Your task to perform on an android device: set default search engine in the chrome app Image 0: 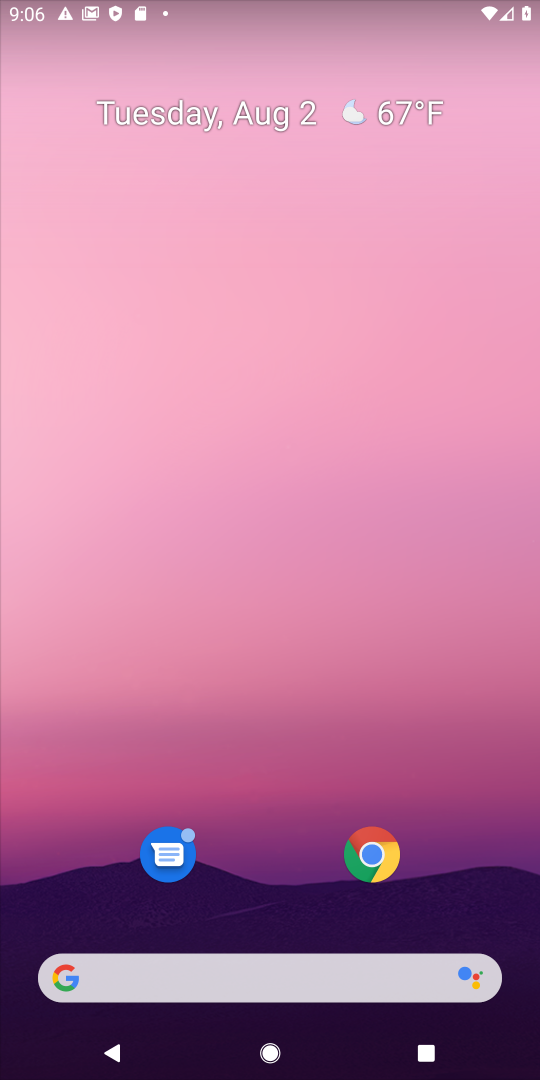
Step 0: click (388, 849)
Your task to perform on an android device: set default search engine in the chrome app Image 1: 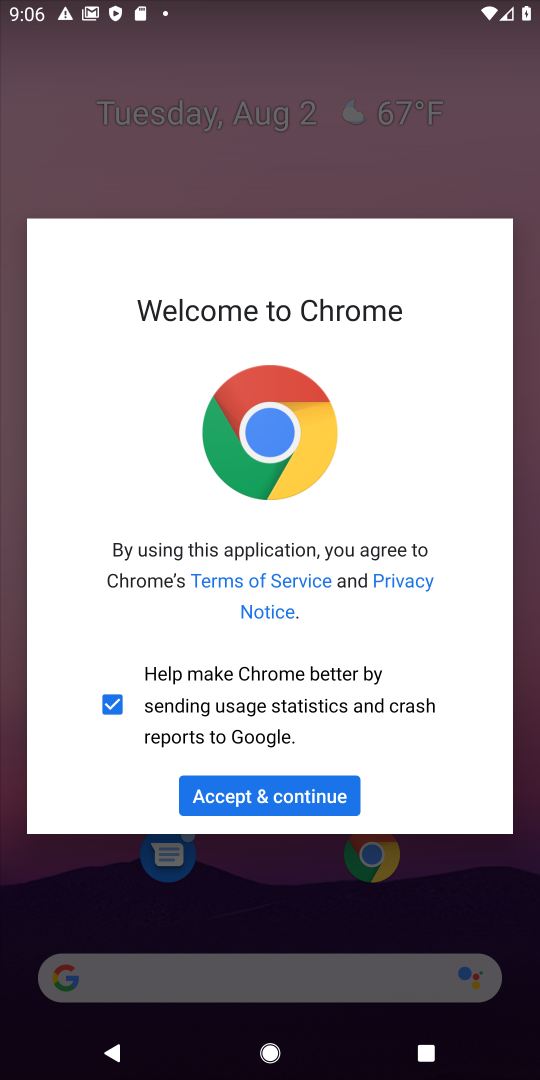
Step 1: click (310, 800)
Your task to perform on an android device: set default search engine in the chrome app Image 2: 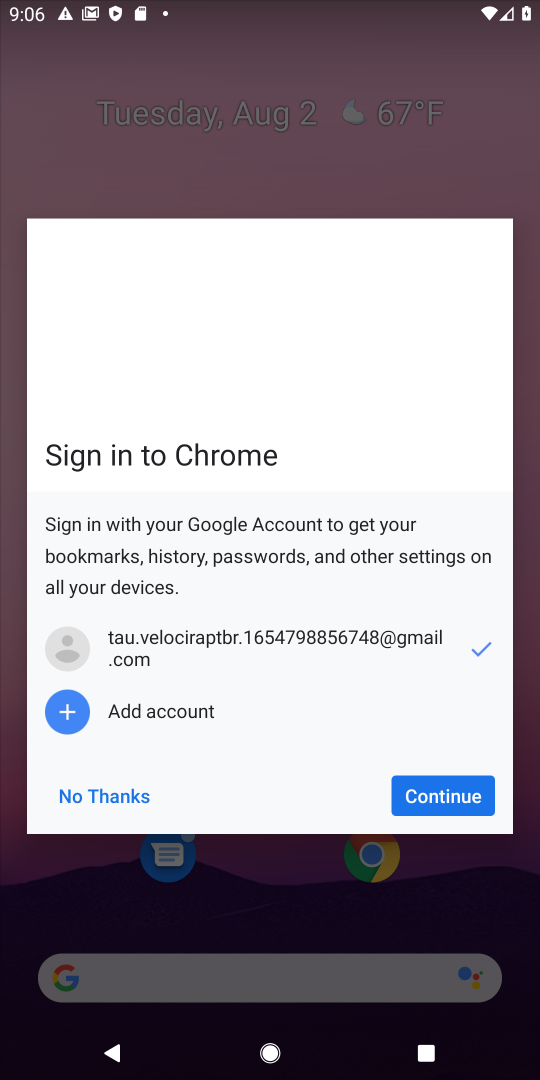
Step 2: click (491, 781)
Your task to perform on an android device: set default search engine in the chrome app Image 3: 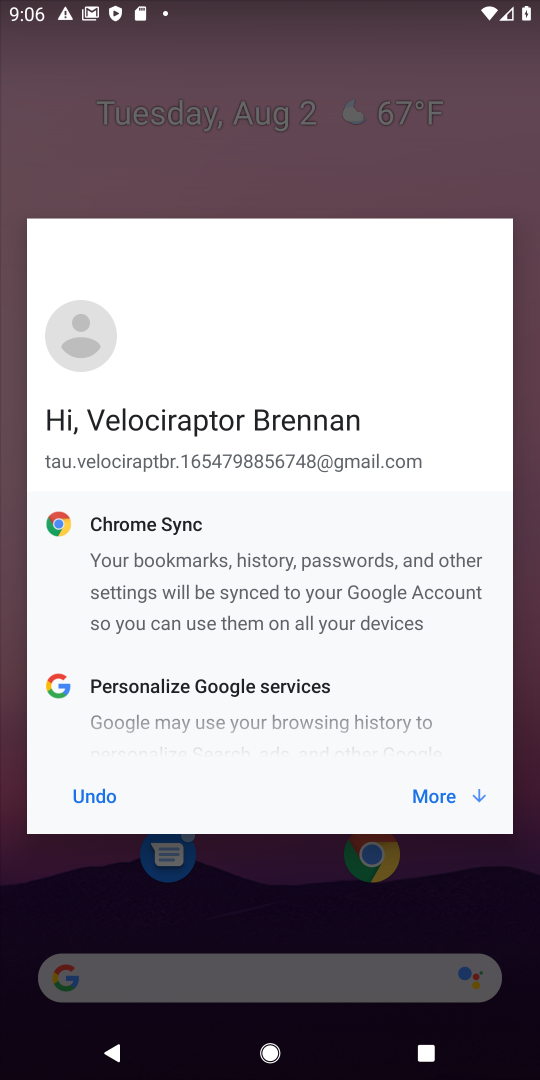
Step 3: click (467, 806)
Your task to perform on an android device: set default search engine in the chrome app Image 4: 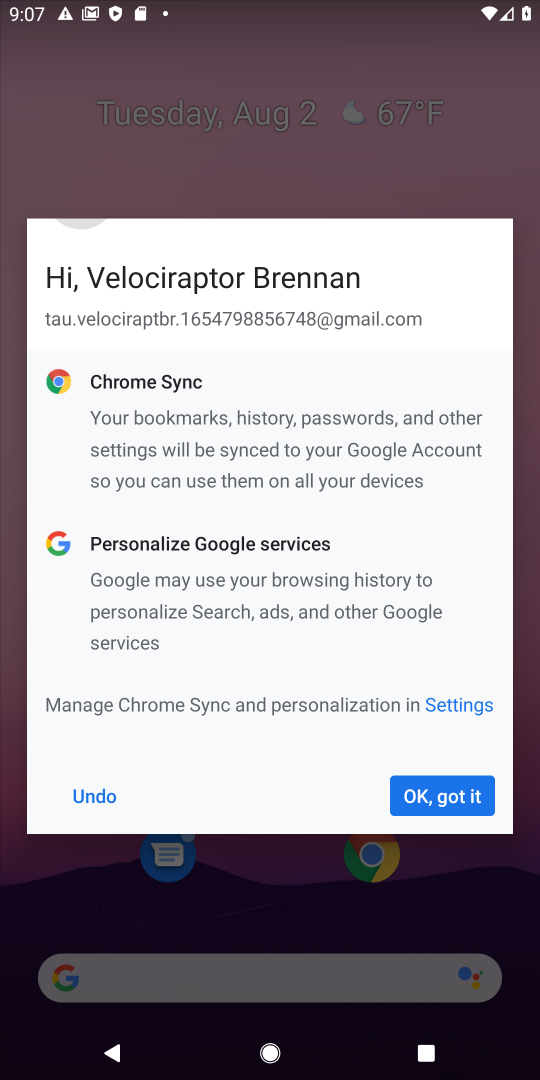
Step 4: click (474, 797)
Your task to perform on an android device: set default search engine in the chrome app Image 5: 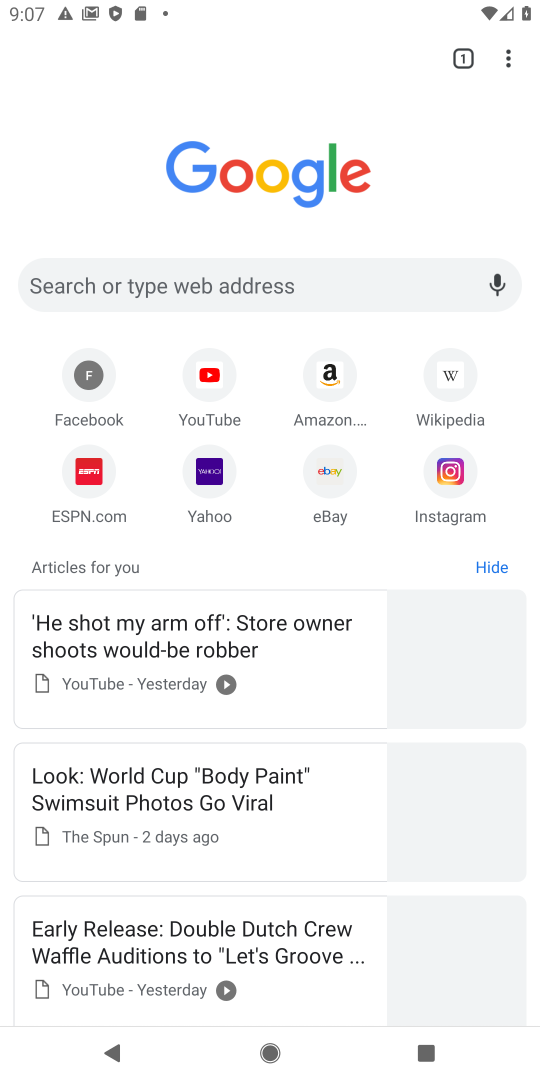
Step 5: drag from (497, 61) to (304, 554)
Your task to perform on an android device: set default search engine in the chrome app Image 6: 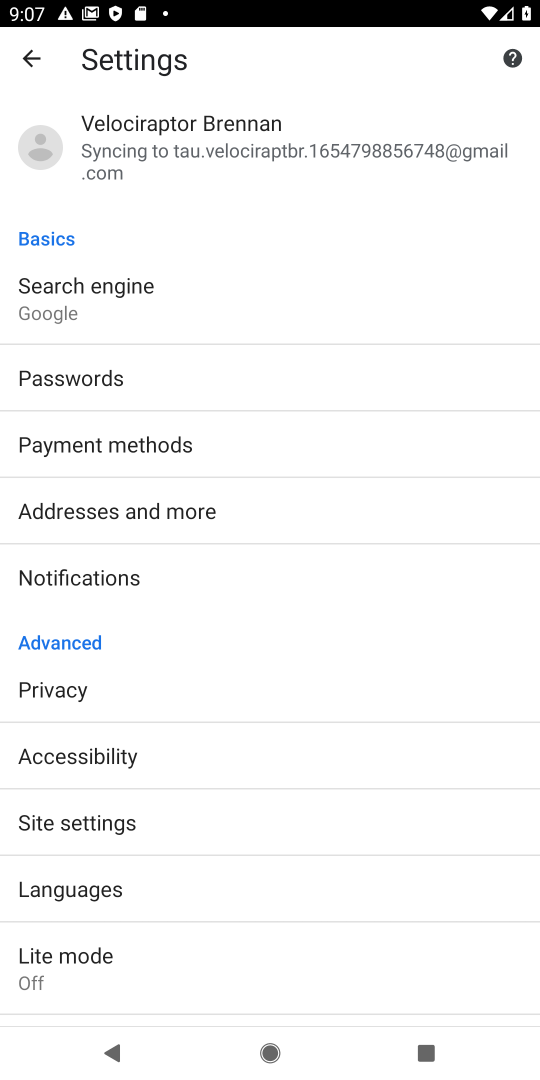
Step 6: click (75, 294)
Your task to perform on an android device: set default search engine in the chrome app Image 7: 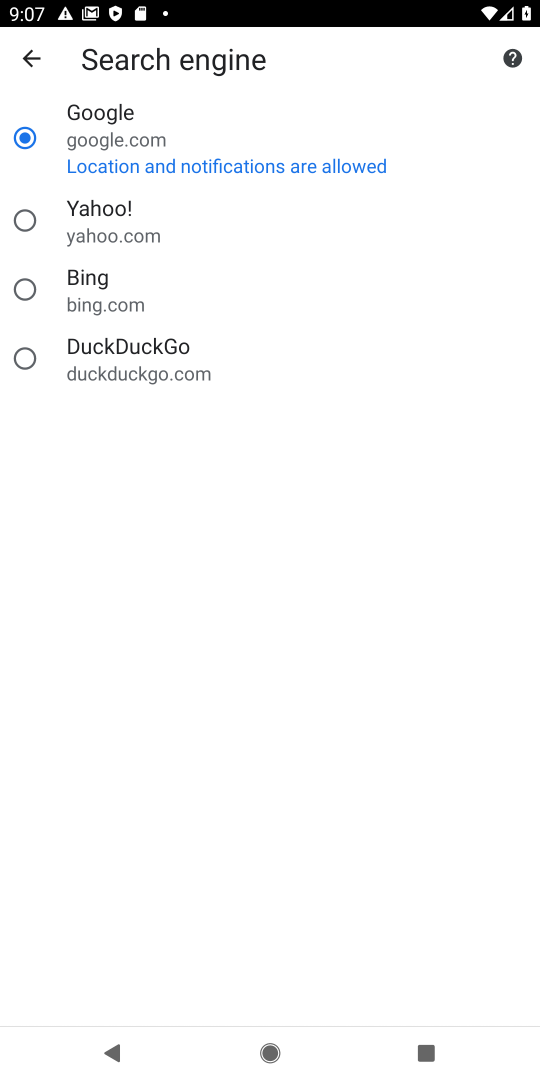
Step 7: click (11, 154)
Your task to perform on an android device: set default search engine in the chrome app Image 8: 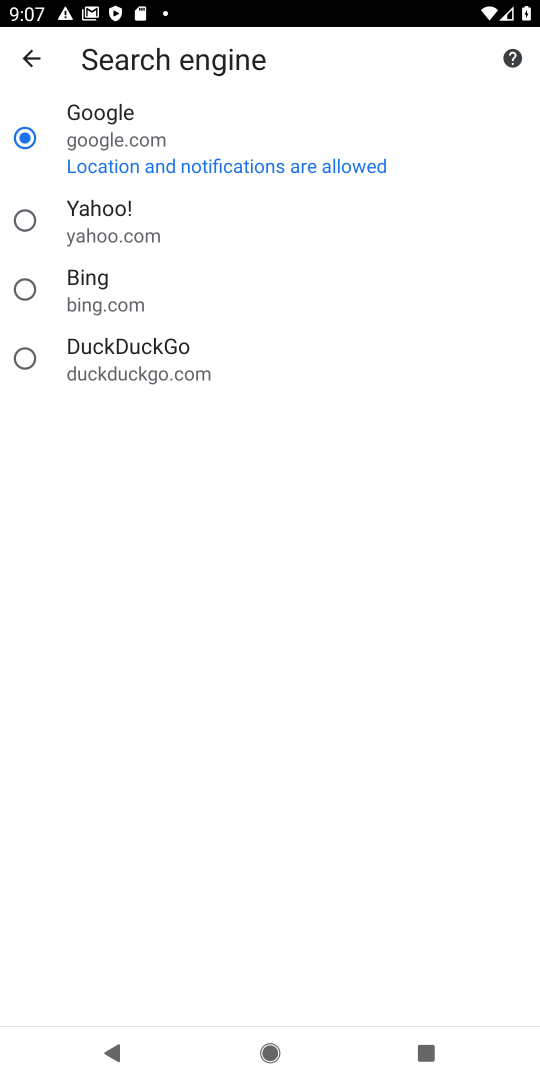
Step 8: task complete